Your task to perform on an android device: Add bose soundsport free to the cart on costco.com, then select checkout. Image 0: 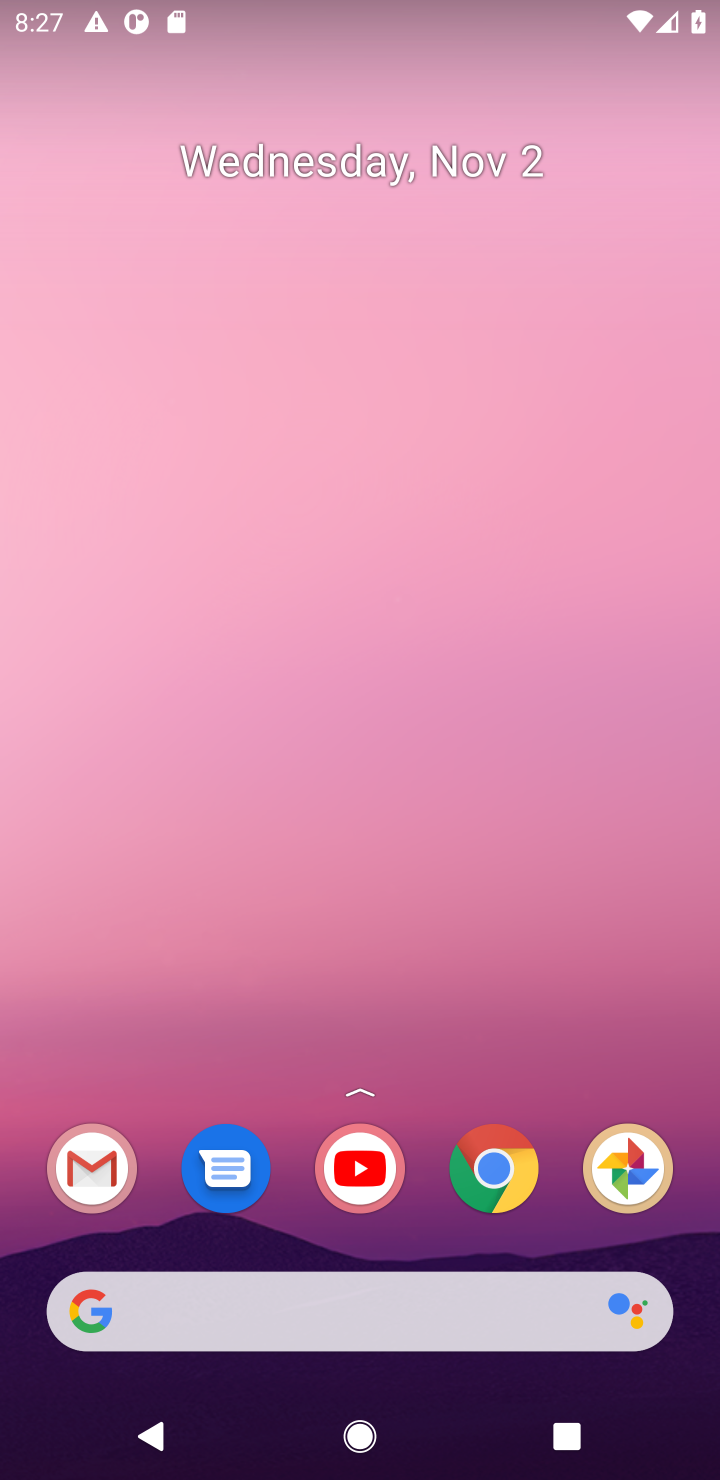
Step 0: click (495, 1168)
Your task to perform on an android device: Add bose soundsport free to the cart on costco.com, then select checkout. Image 1: 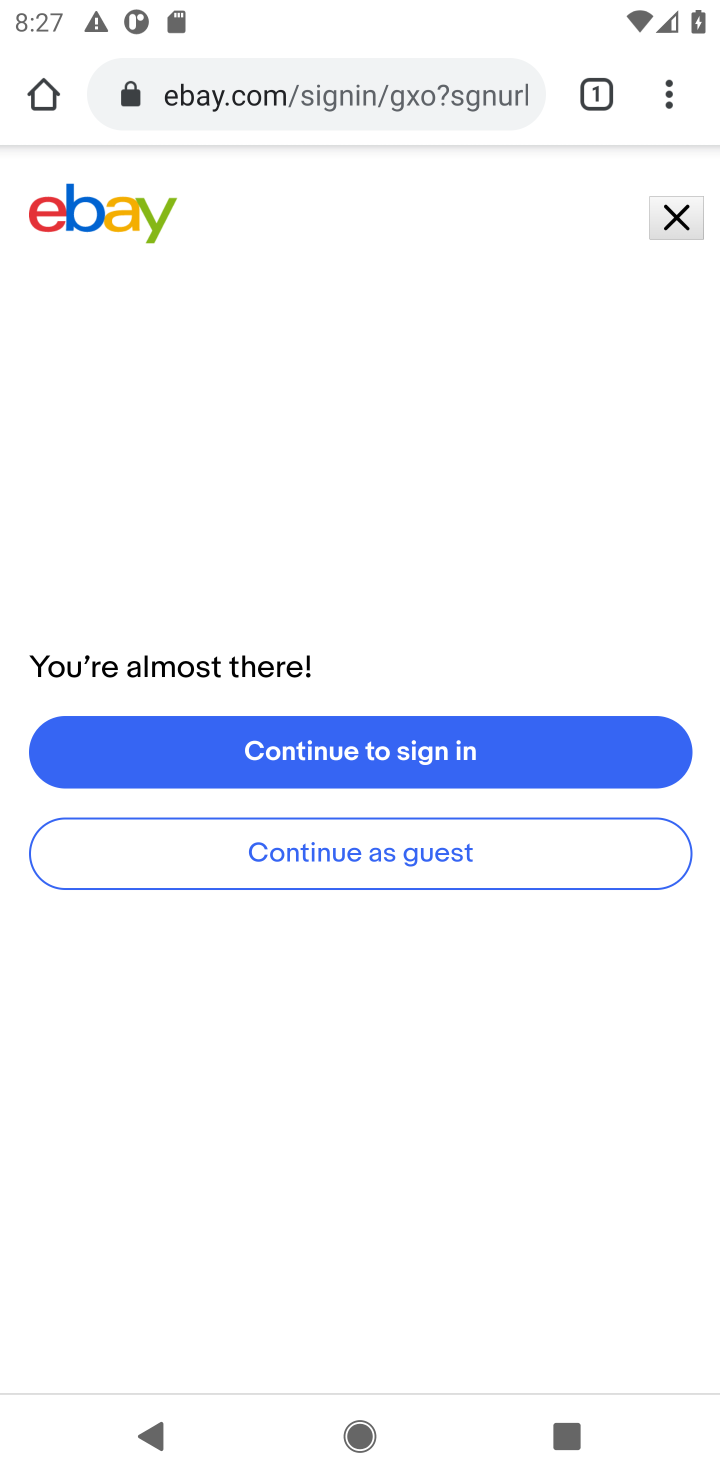
Step 1: click (443, 104)
Your task to perform on an android device: Add bose soundsport free to the cart on costco.com, then select checkout. Image 2: 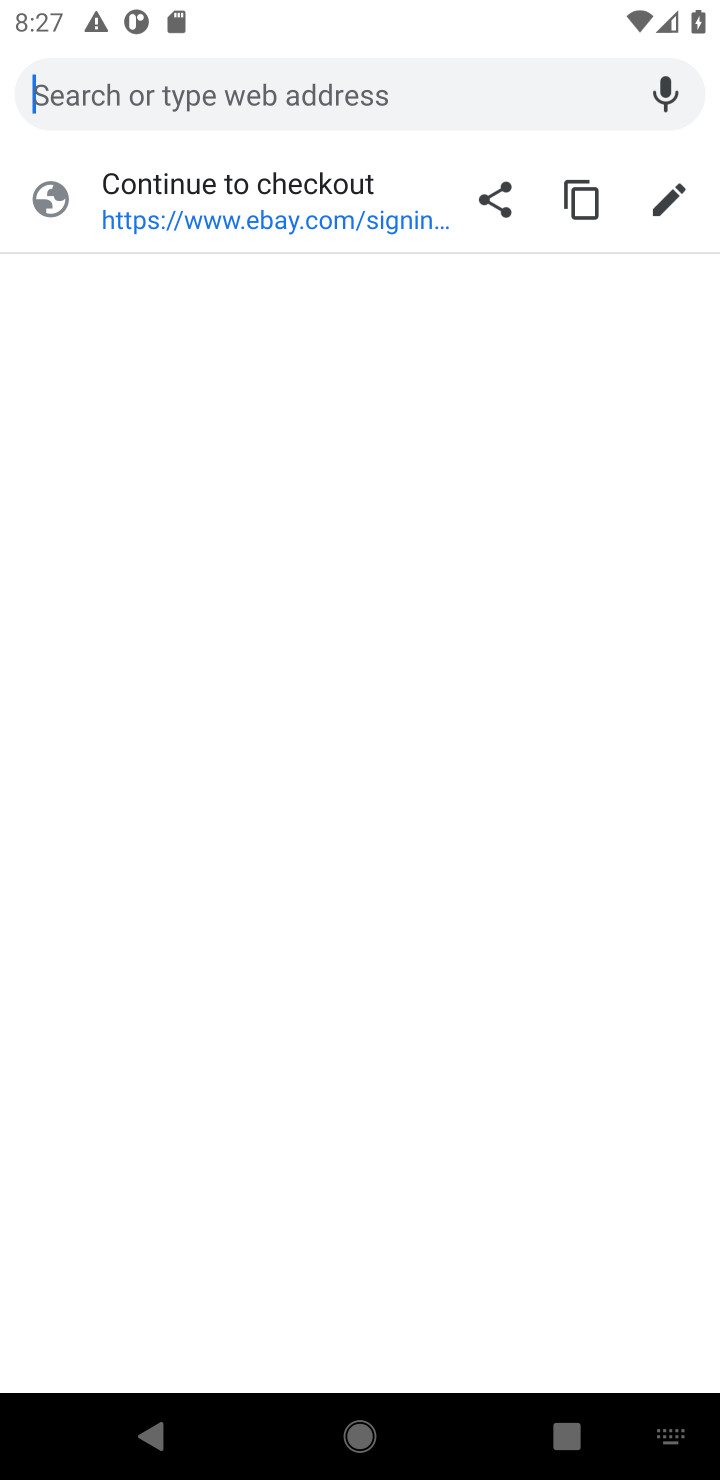
Step 2: type "costco.com"
Your task to perform on an android device: Add bose soundsport free to the cart on costco.com, then select checkout. Image 3: 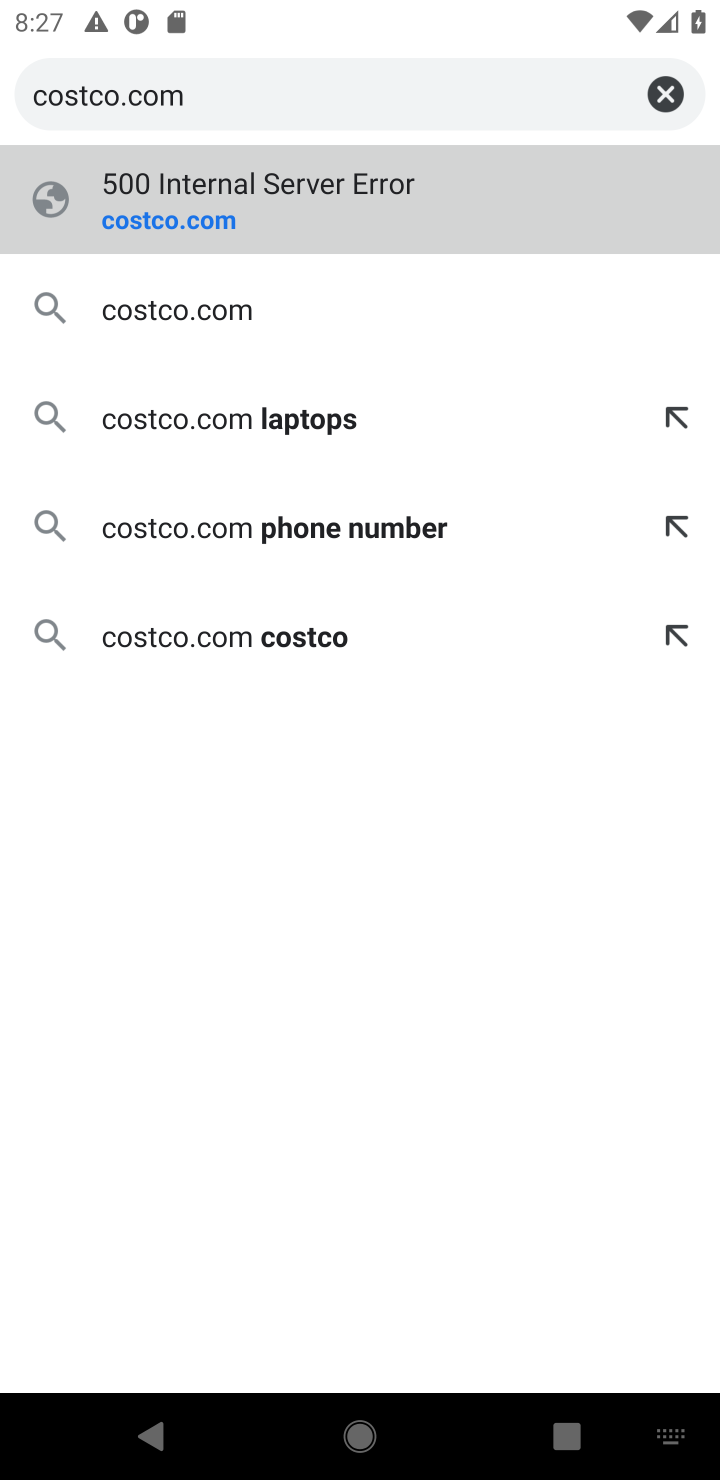
Step 3: click (179, 317)
Your task to perform on an android device: Add bose soundsport free to the cart on costco.com, then select checkout. Image 4: 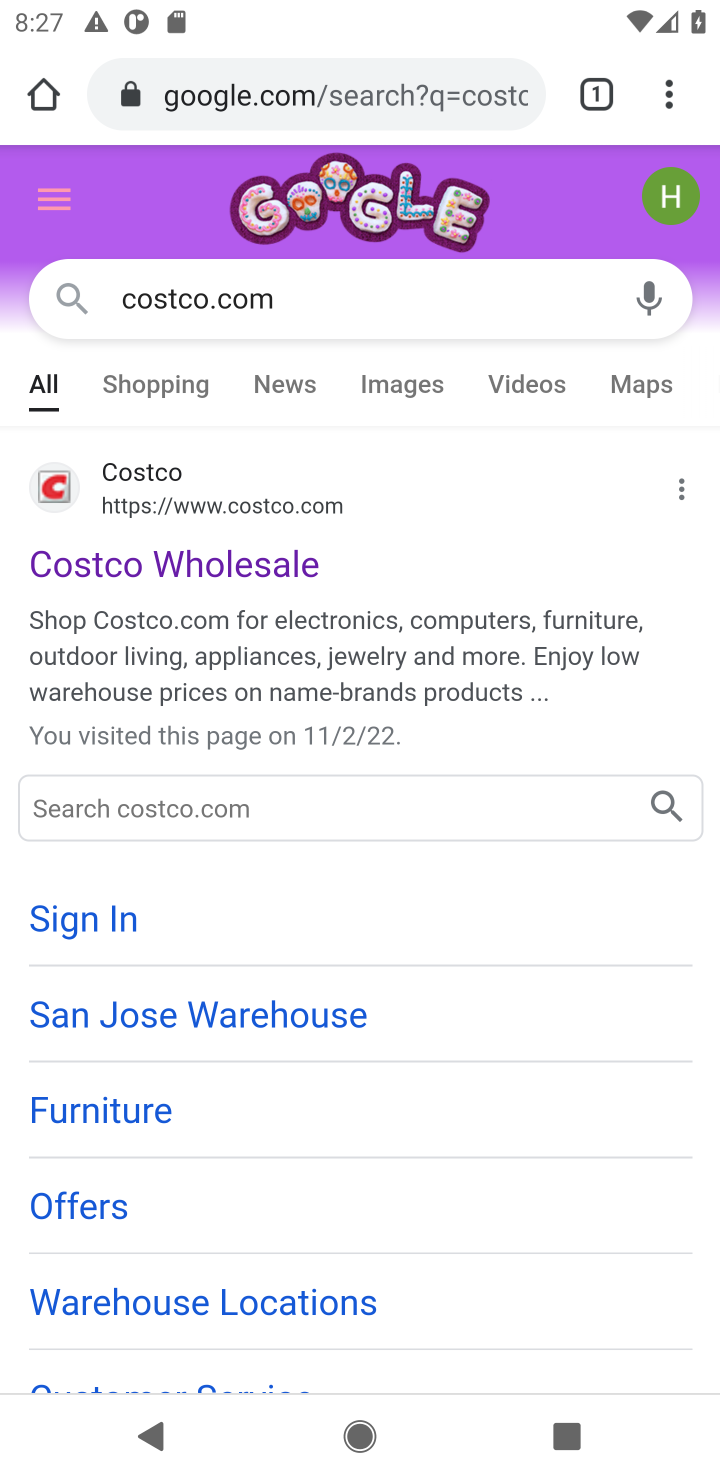
Step 4: click (307, 565)
Your task to perform on an android device: Add bose soundsport free to the cart on costco.com, then select checkout. Image 5: 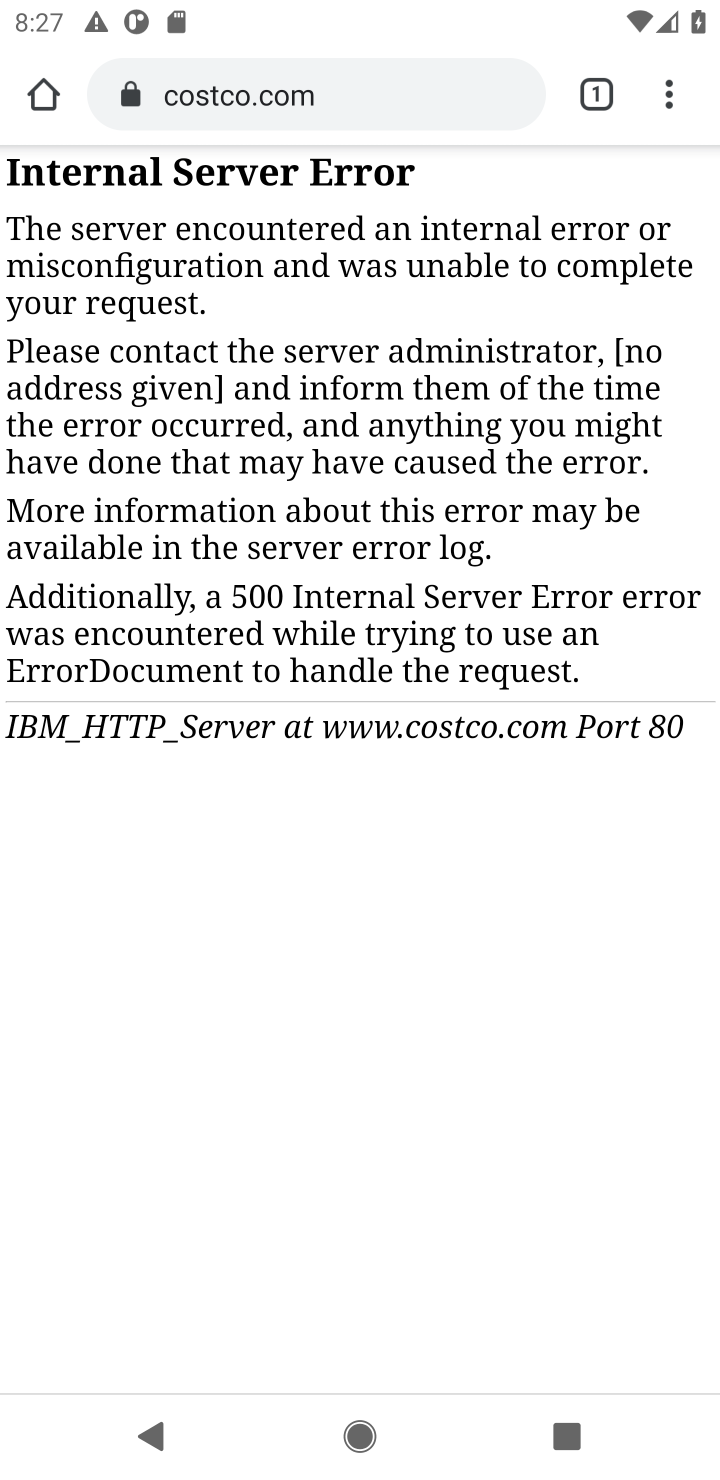
Step 5: task complete